Your task to perform on an android device: Search for sushi restaurants on Maps Image 0: 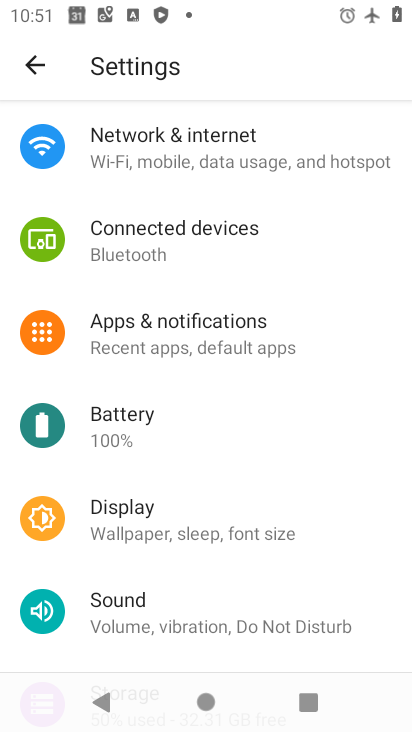
Step 0: press home button
Your task to perform on an android device: Search for sushi restaurants on Maps Image 1: 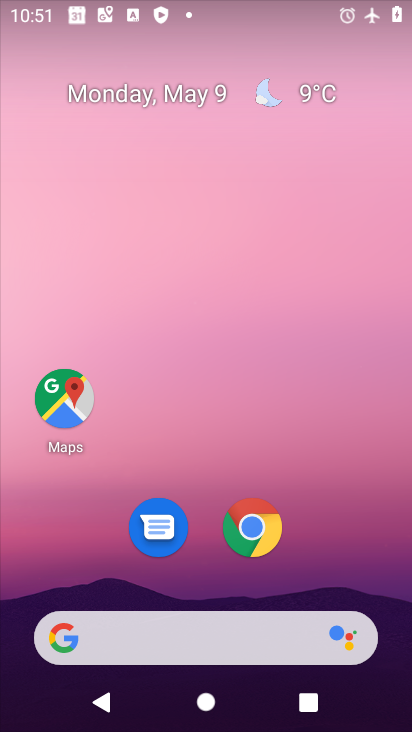
Step 1: click (63, 395)
Your task to perform on an android device: Search for sushi restaurants on Maps Image 2: 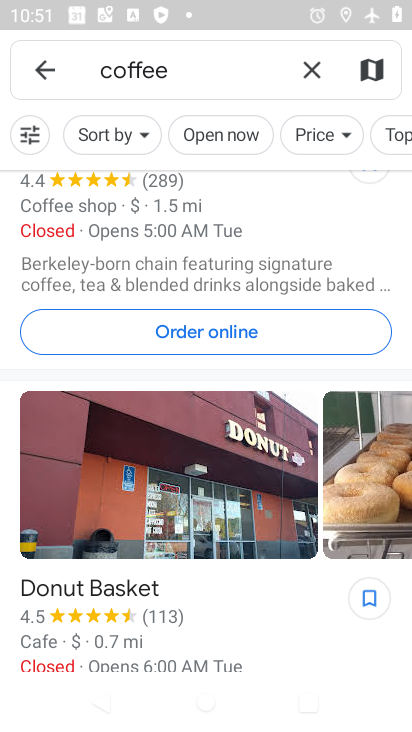
Step 2: click (309, 67)
Your task to perform on an android device: Search for sushi restaurants on Maps Image 3: 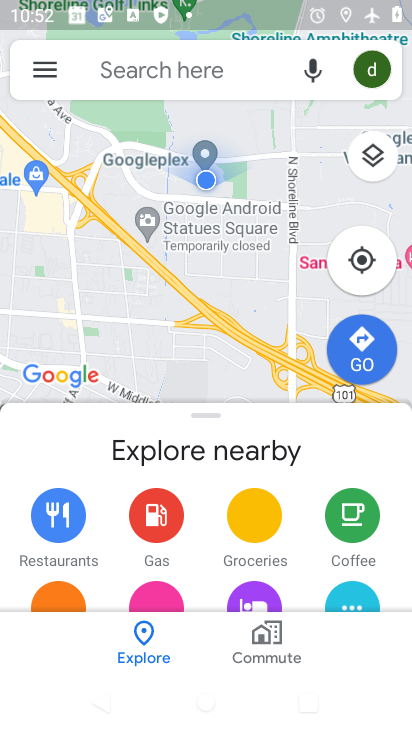
Step 3: click (147, 65)
Your task to perform on an android device: Search for sushi restaurants on Maps Image 4: 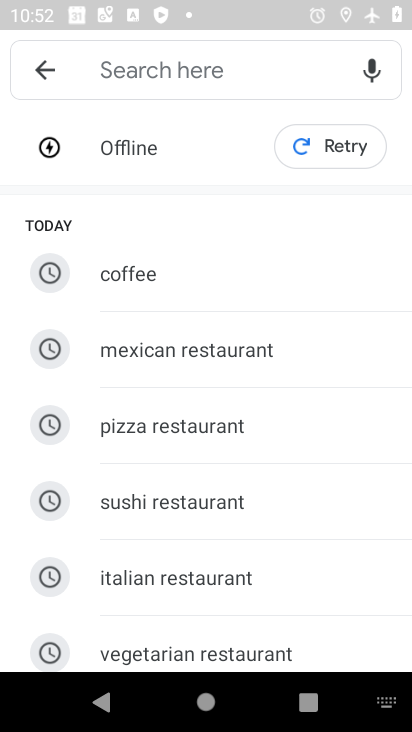
Step 4: type "sushi restaurants"
Your task to perform on an android device: Search for sushi restaurants on Maps Image 5: 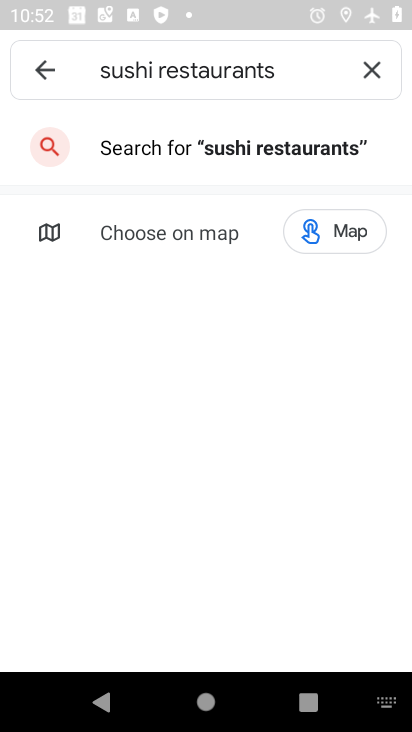
Step 5: click (231, 149)
Your task to perform on an android device: Search for sushi restaurants on Maps Image 6: 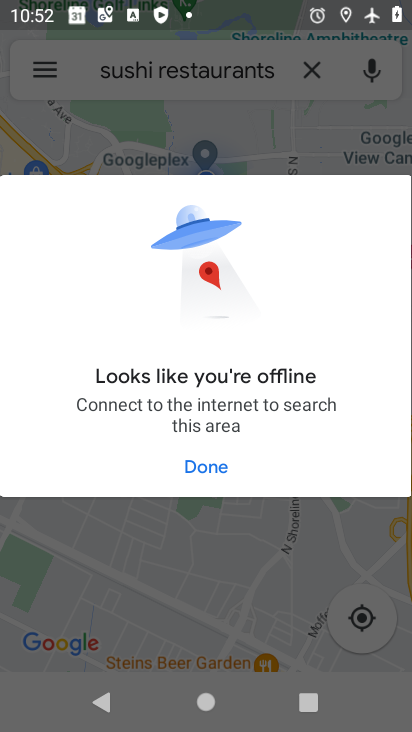
Step 6: task complete